Your task to perform on an android device: see sites visited before in the chrome app Image 0: 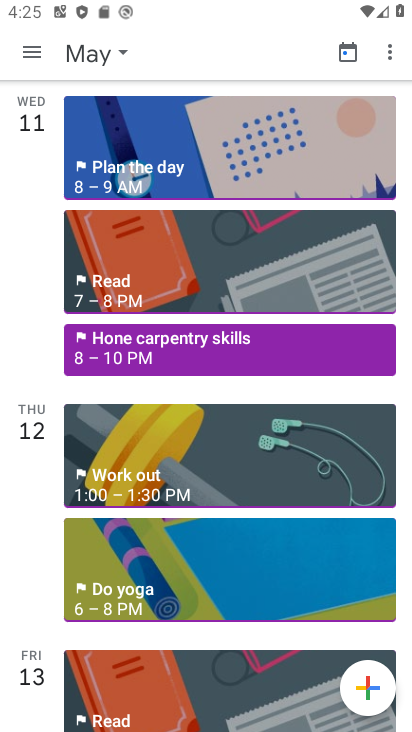
Step 0: press home button
Your task to perform on an android device: see sites visited before in the chrome app Image 1: 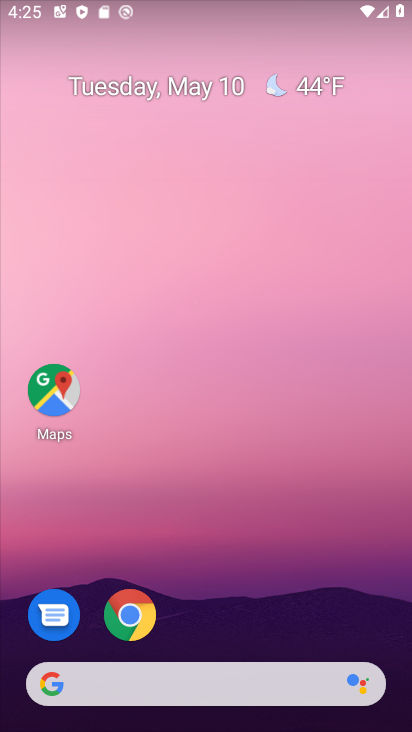
Step 1: click (121, 605)
Your task to perform on an android device: see sites visited before in the chrome app Image 2: 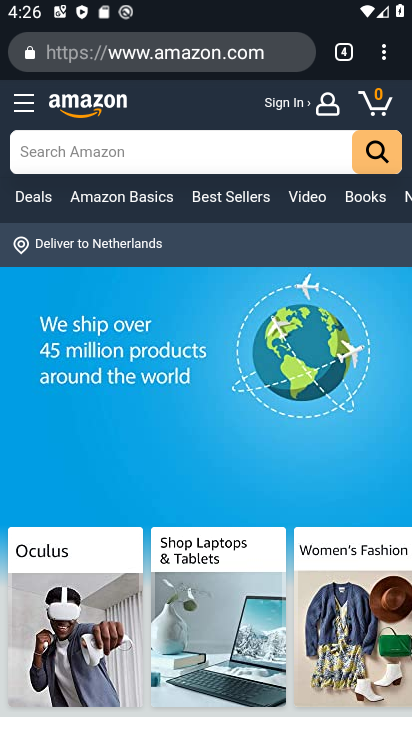
Step 2: click (385, 56)
Your task to perform on an android device: see sites visited before in the chrome app Image 3: 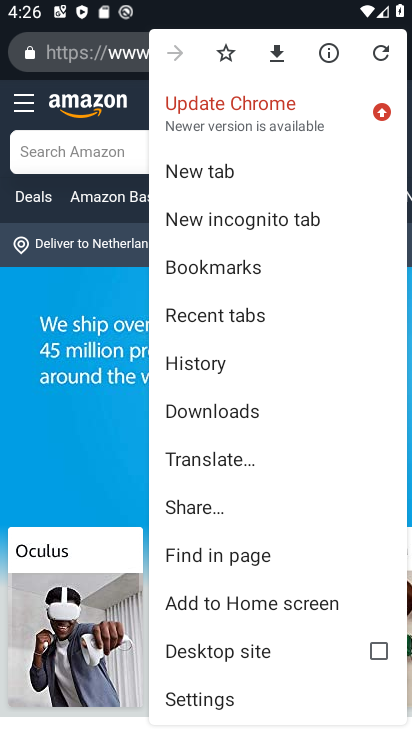
Step 3: click (199, 360)
Your task to perform on an android device: see sites visited before in the chrome app Image 4: 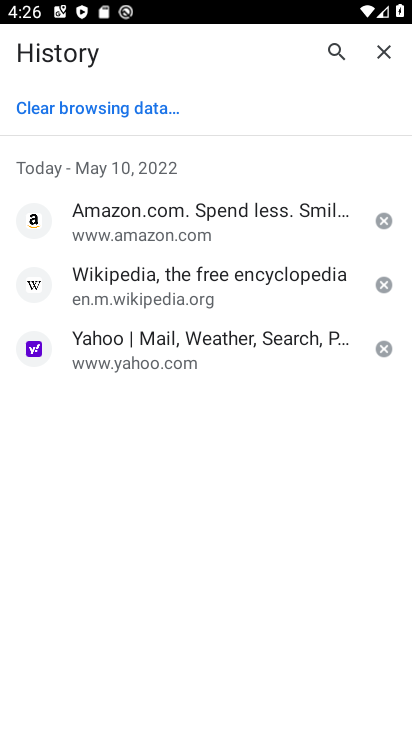
Step 4: task complete